Your task to perform on an android device: turn off translation in the chrome app Image 0: 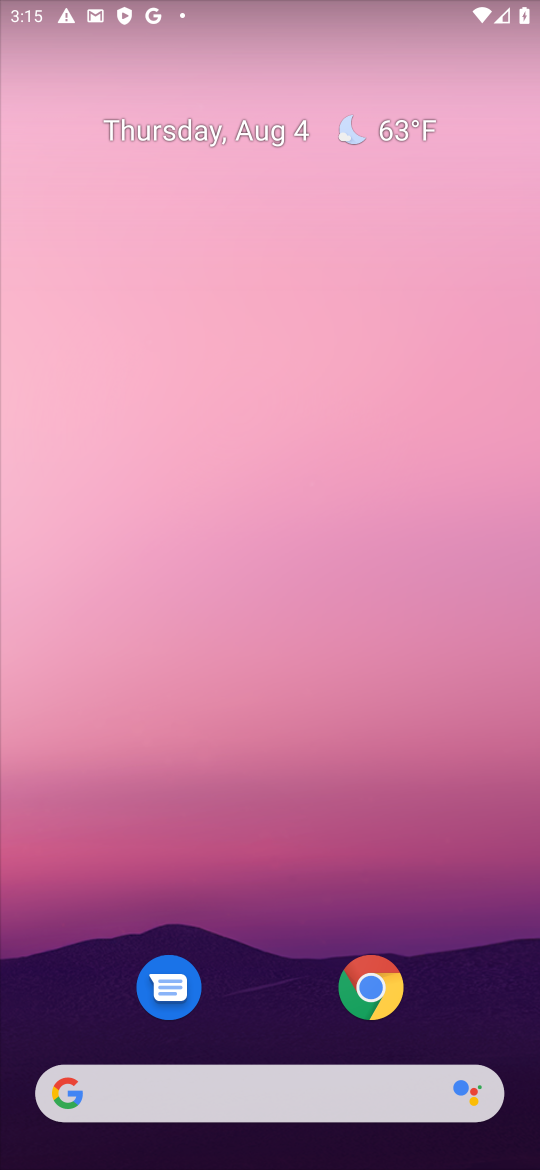
Step 0: drag from (262, 970) to (336, 308)
Your task to perform on an android device: turn off translation in the chrome app Image 1: 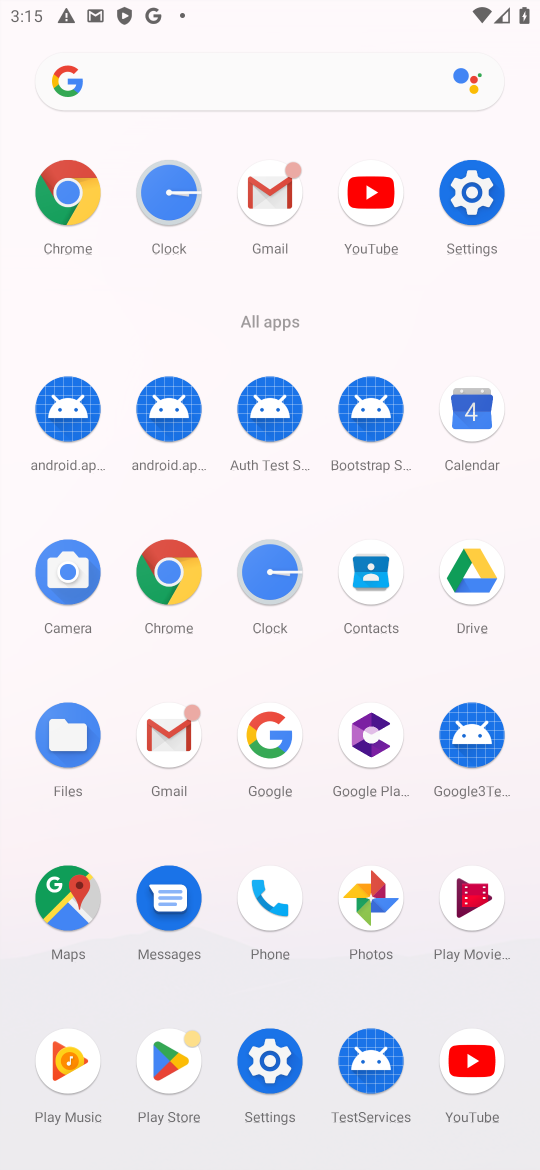
Step 1: click (65, 206)
Your task to perform on an android device: turn off translation in the chrome app Image 2: 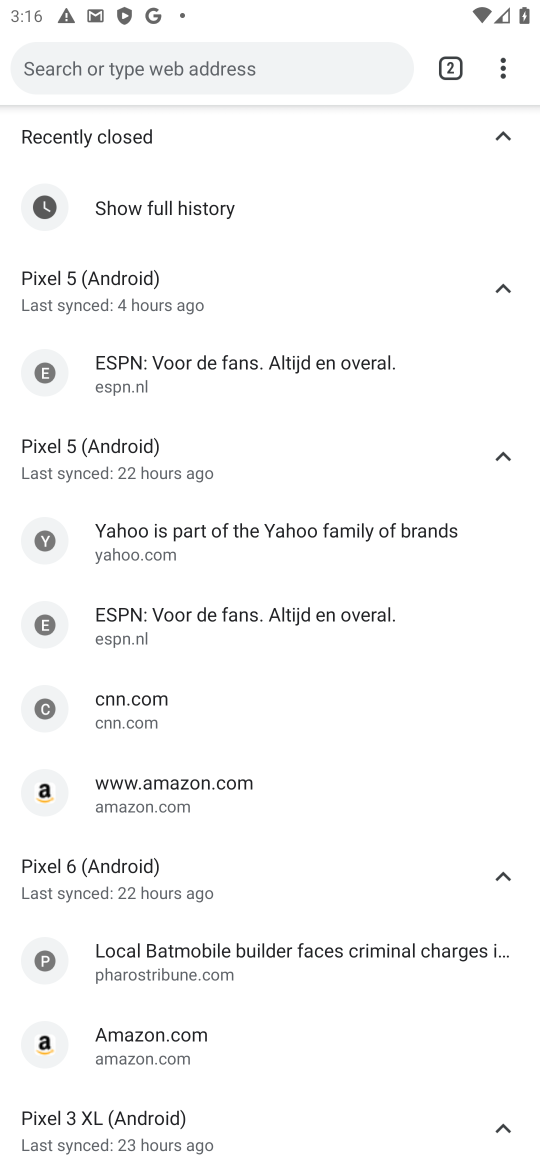
Step 2: click (505, 78)
Your task to perform on an android device: turn off translation in the chrome app Image 3: 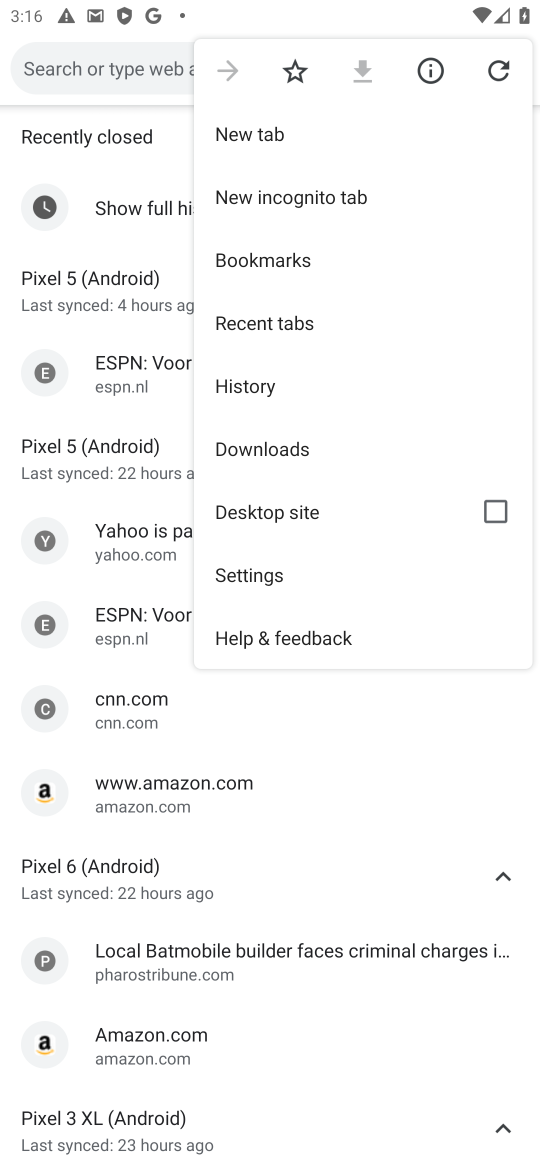
Step 3: click (259, 569)
Your task to perform on an android device: turn off translation in the chrome app Image 4: 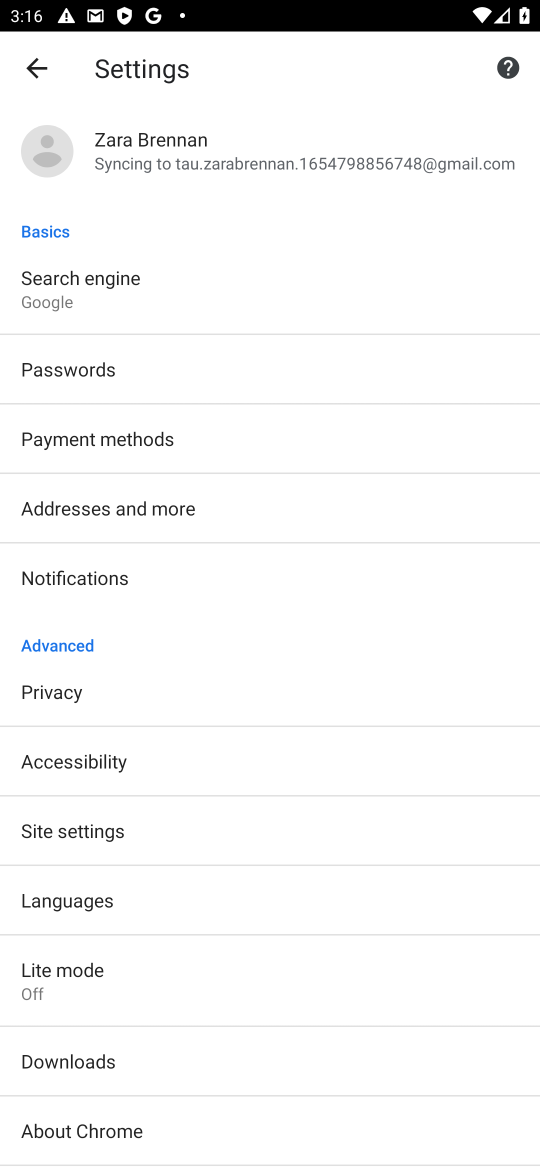
Step 4: click (86, 901)
Your task to perform on an android device: turn off translation in the chrome app Image 5: 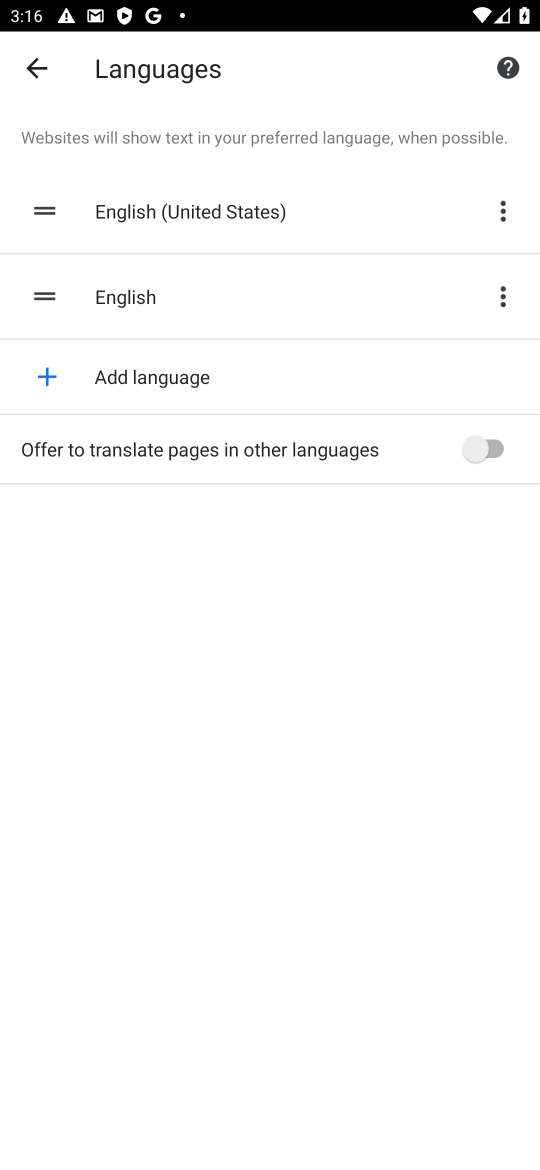
Step 5: task complete